Your task to perform on an android device: turn off picture-in-picture Image 0: 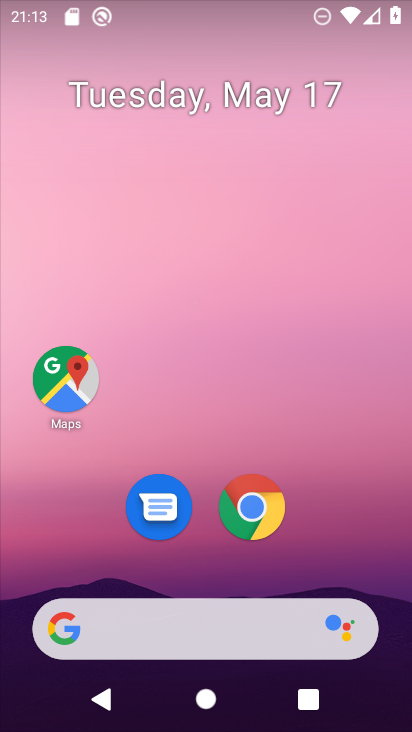
Step 0: click (257, 512)
Your task to perform on an android device: turn off picture-in-picture Image 1: 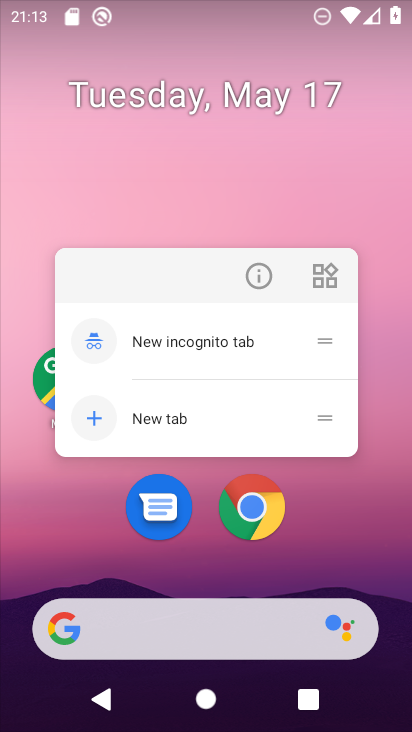
Step 1: click (261, 278)
Your task to perform on an android device: turn off picture-in-picture Image 2: 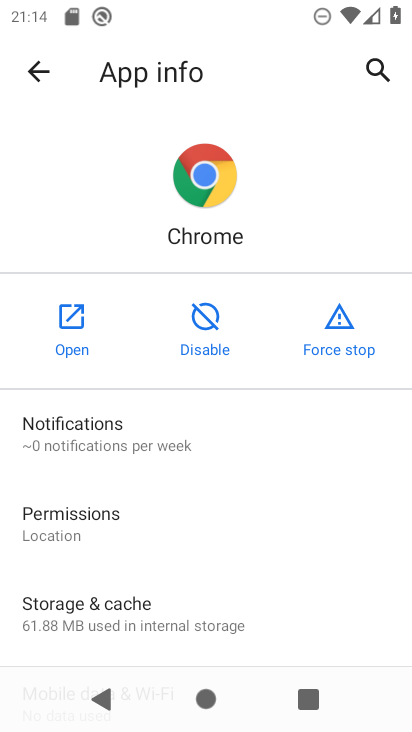
Step 2: drag from (200, 566) to (249, 142)
Your task to perform on an android device: turn off picture-in-picture Image 3: 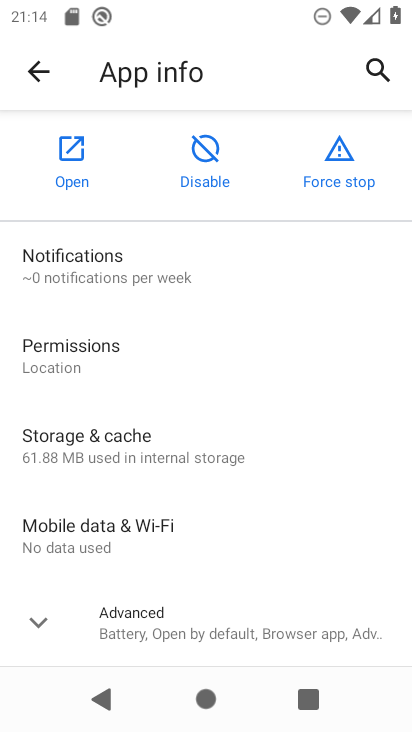
Step 3: click (37, 620)
Your task to perform on an android device: turn off picture-in-picture Image 4: 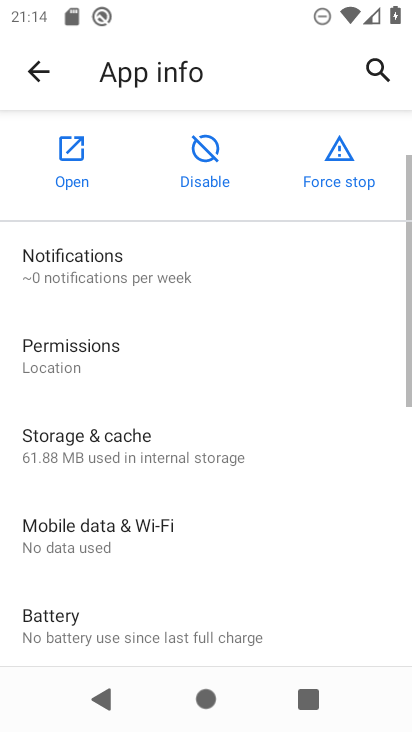
Step 4: drag from (187, 590) to (188, 153)
Your task to perform on an android device: turn off picture-in-picture Image 5: 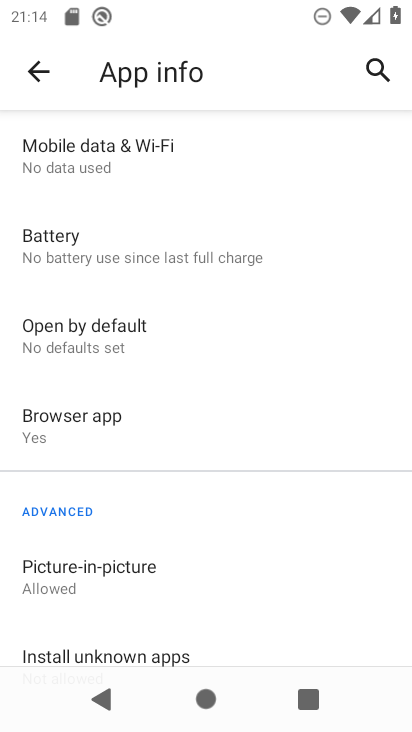
Step 5: drag from (177, 551) to (172, 264)
Your task to perform on an android device: turn off picture-in-picture Image 6: 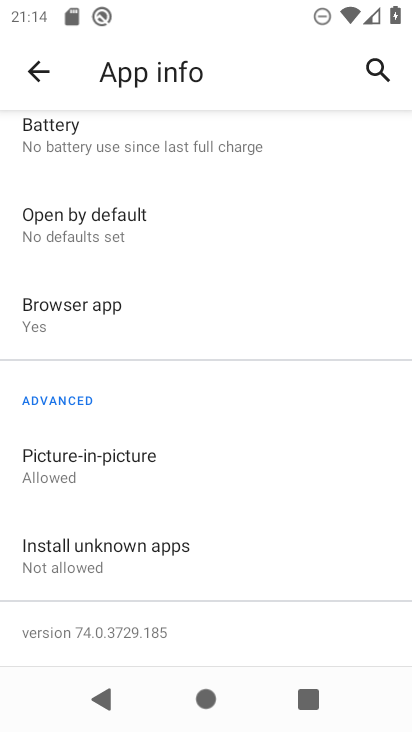
Step 6: click (70, 457)
Your task to perform on an android device: turn off picture-in-picture Image 7: 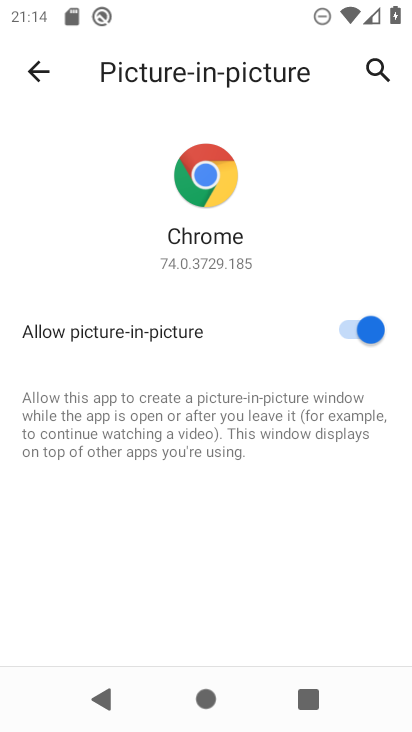
Step 7: click (356, 334)
Your task to perform on an android device: turn off picture-in-picture Image 8: 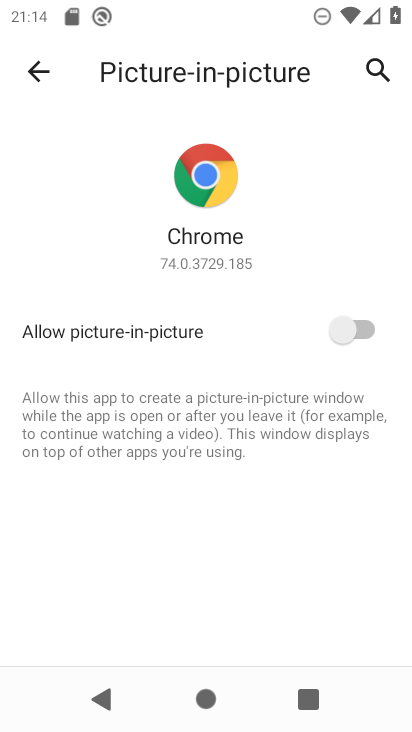
Step 8: task complete